Your task to perform on an android device: choose inbox layout in the gmail app Image 0: 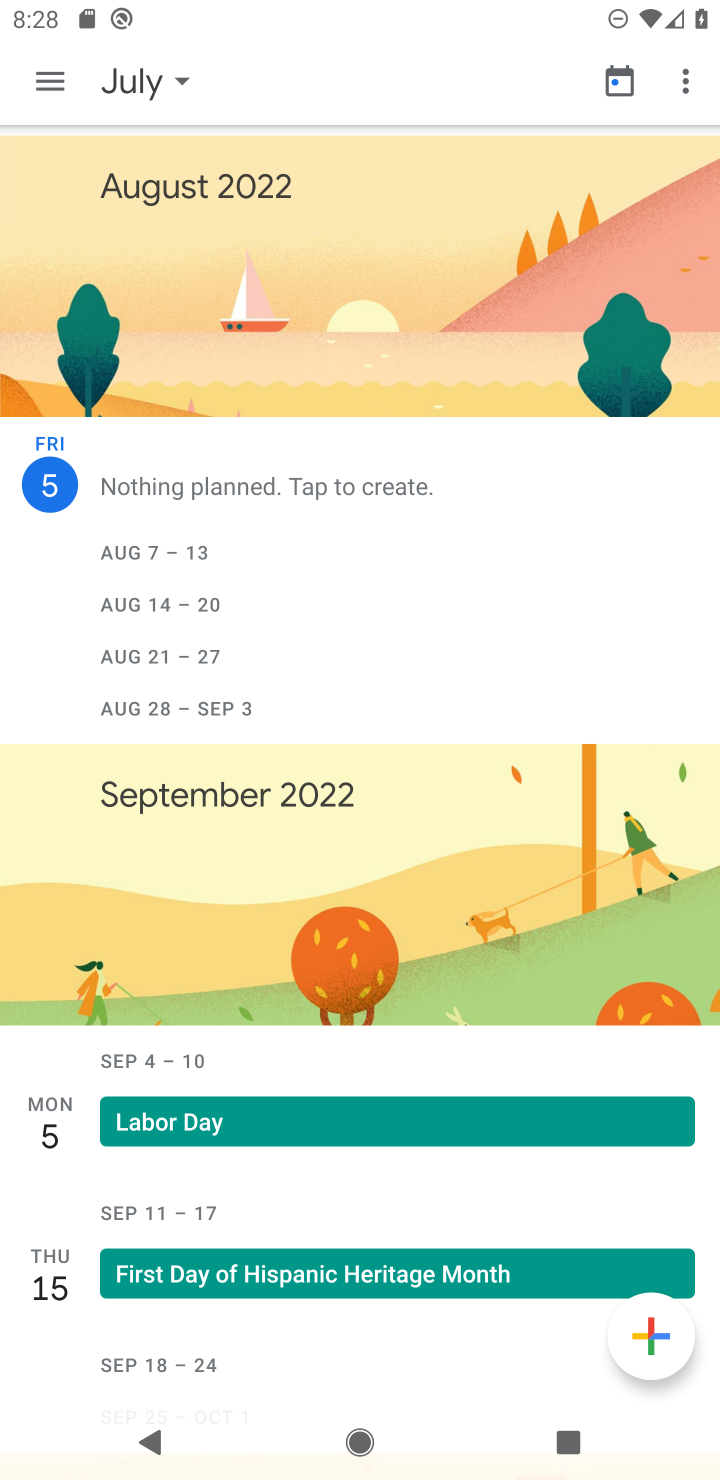
Step 0: press home button
Your task to perform on an android device: choose inbox layout in the gmail app Image 1: 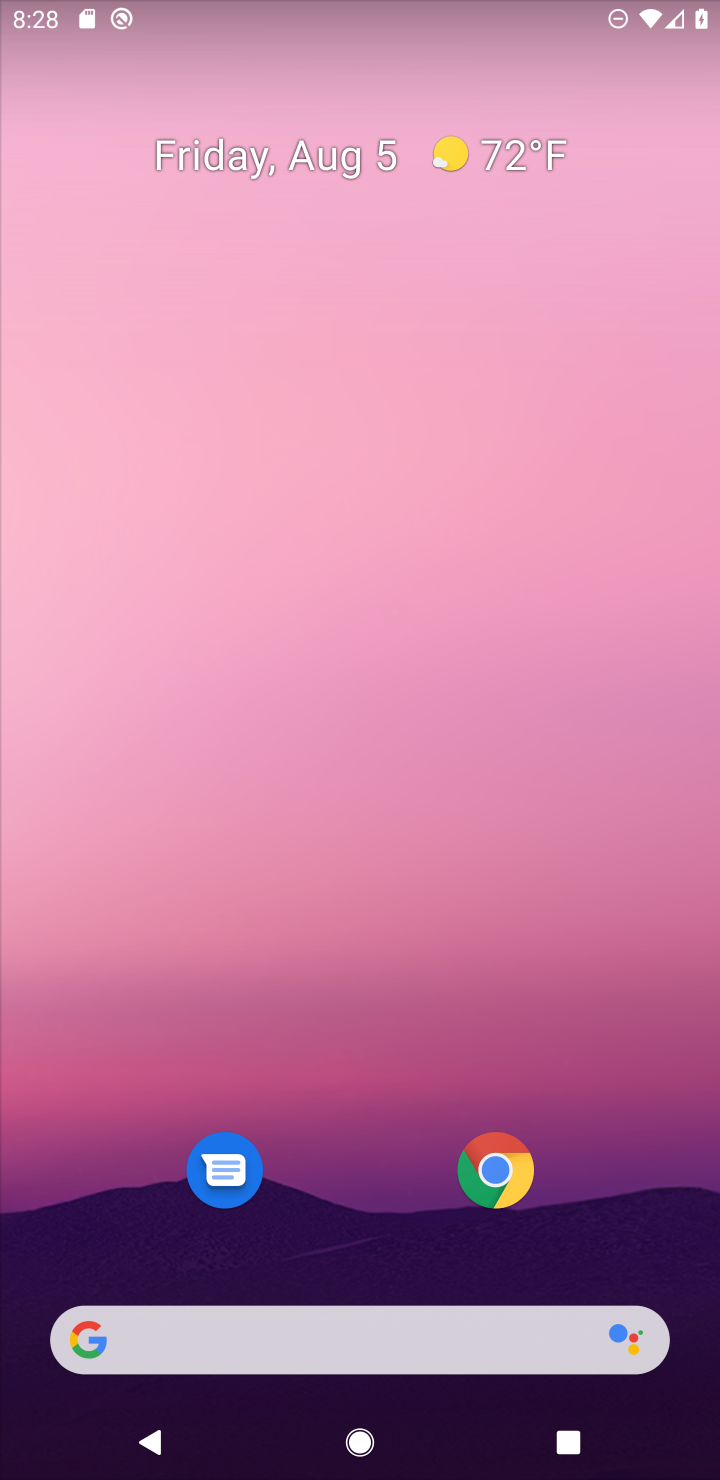
Step 1: drag from (656, 1236) to (558, 320)
Your task to perform on an android device: choose inbox layout in the gmail app Image 2: 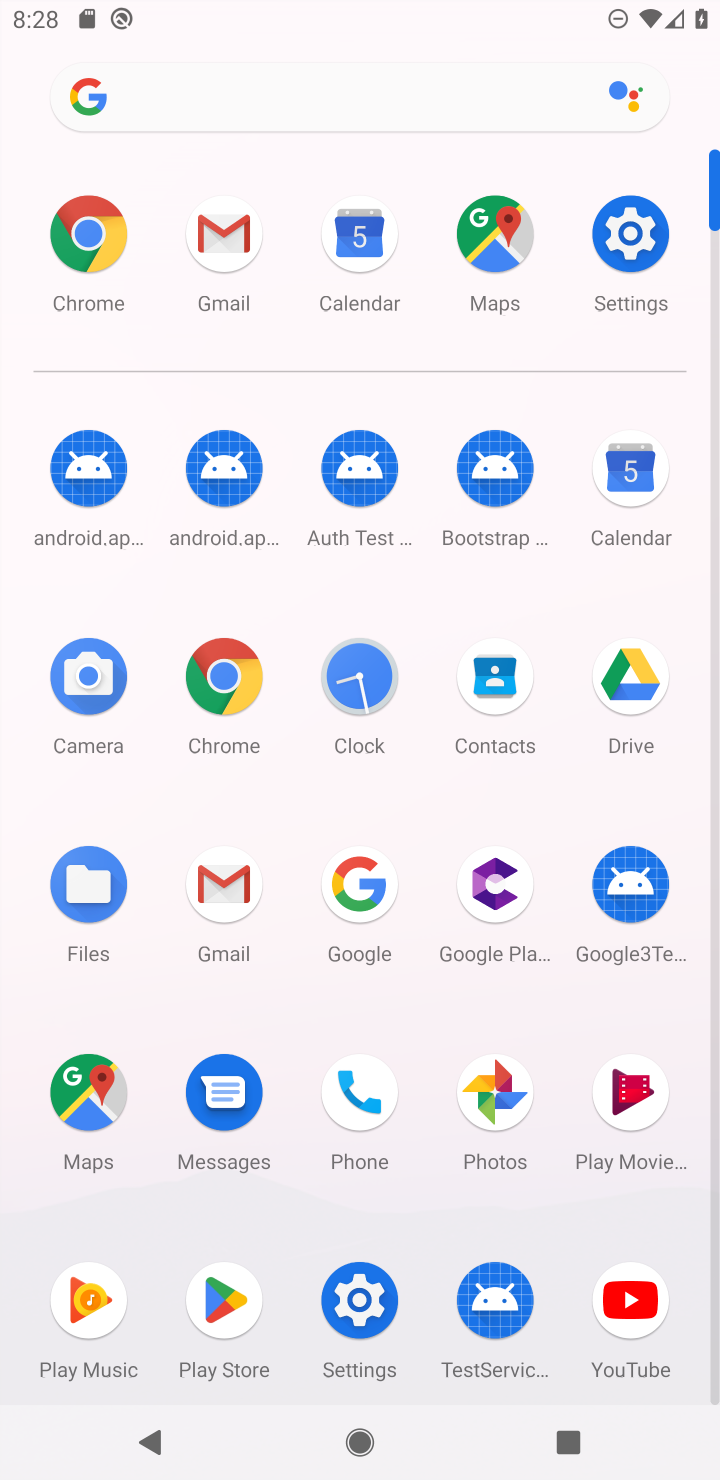
Step 2: click (218, 889)
Your task to perform on an android device: choose inbox layout in the gmail app Image 3: 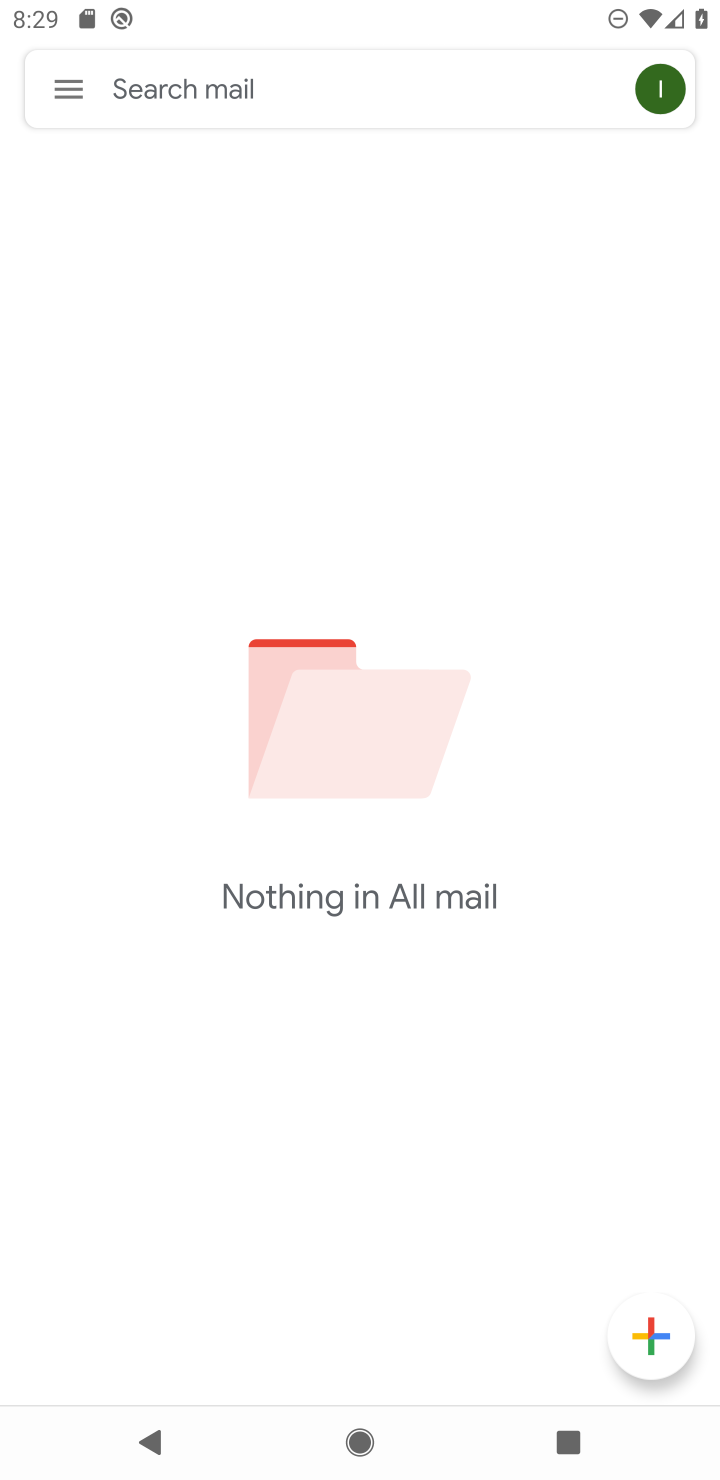
Step 3: click (57, 91)
Your task to perform on an android device: choose inbox layout in the gmail app Image 4: 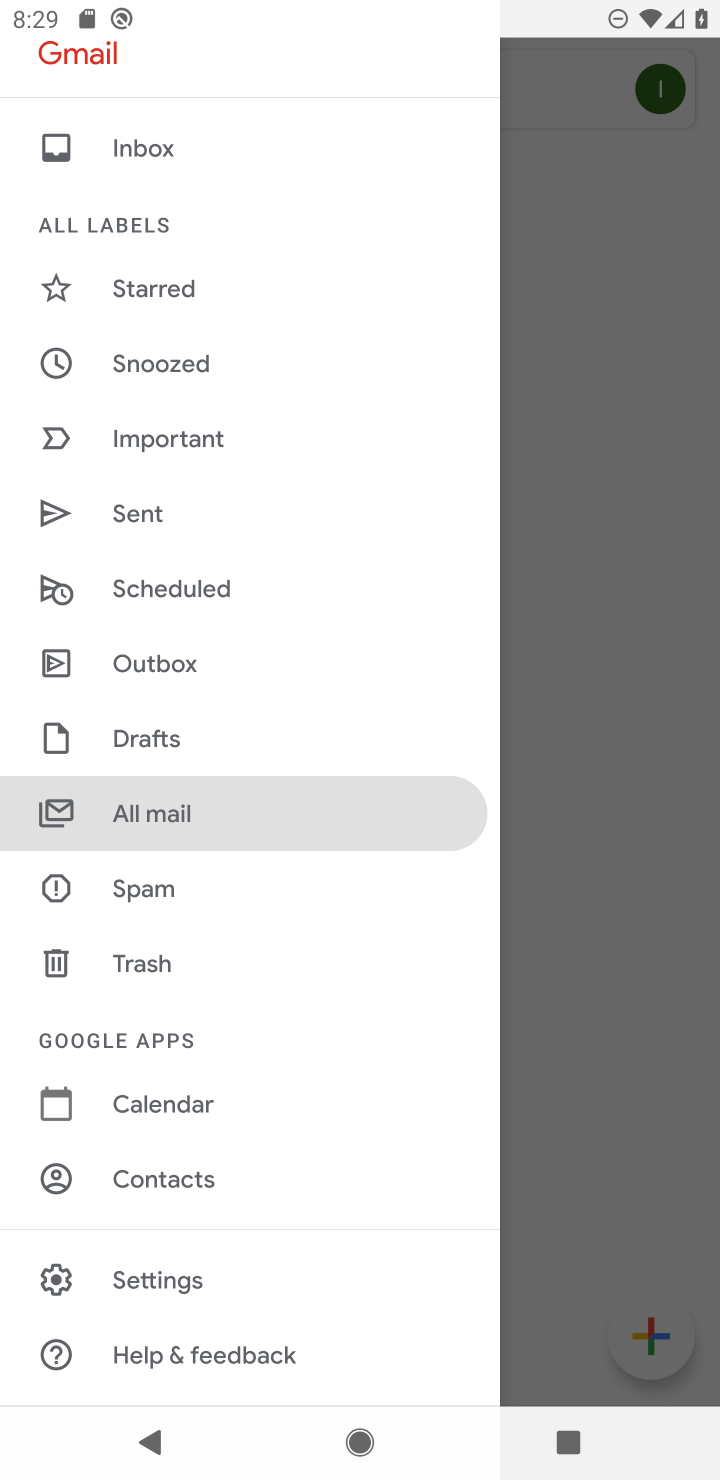
Step 4: click (190, 1280)
Your task to perform on an android device: choose inbox layout in the gmail app Image 5: 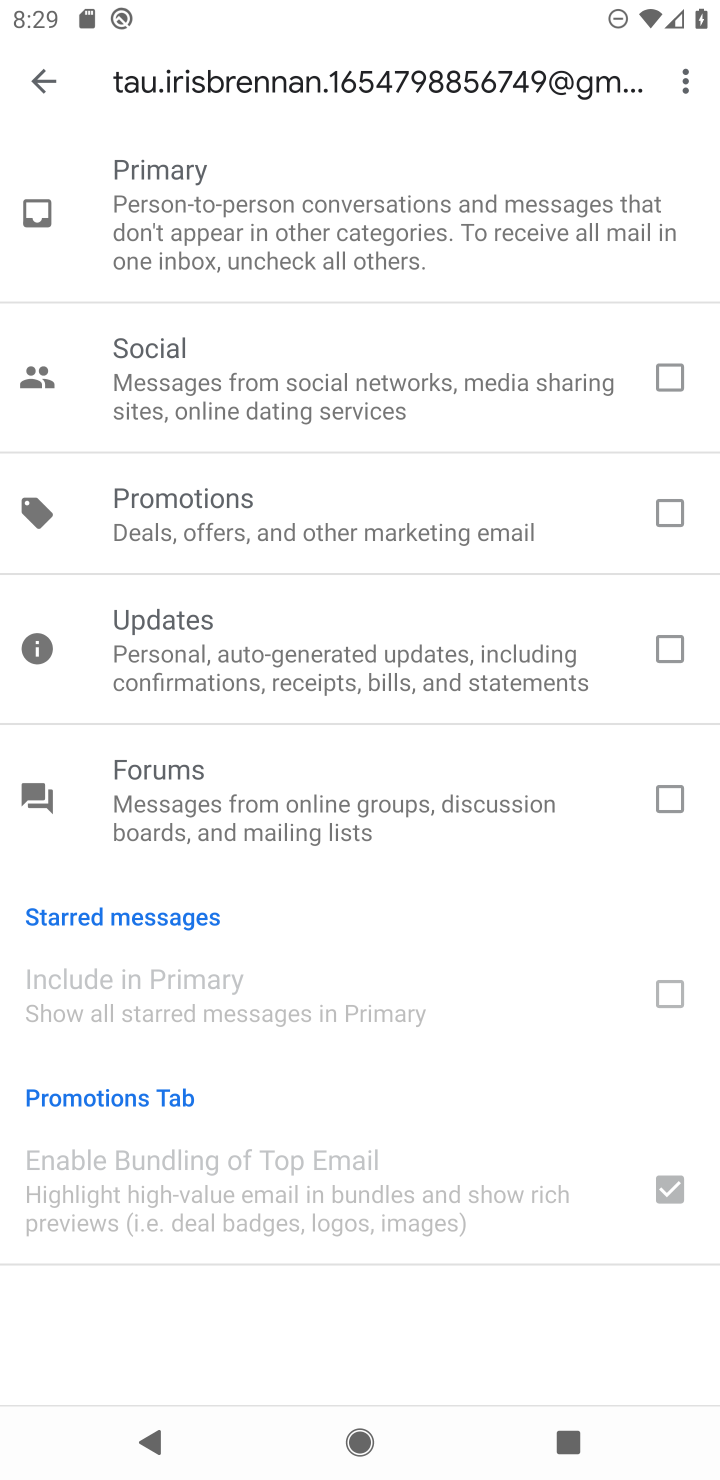
Step 5: press back button
Your task to perform on an android device: choose inbox layout in the gmail app Image 6: 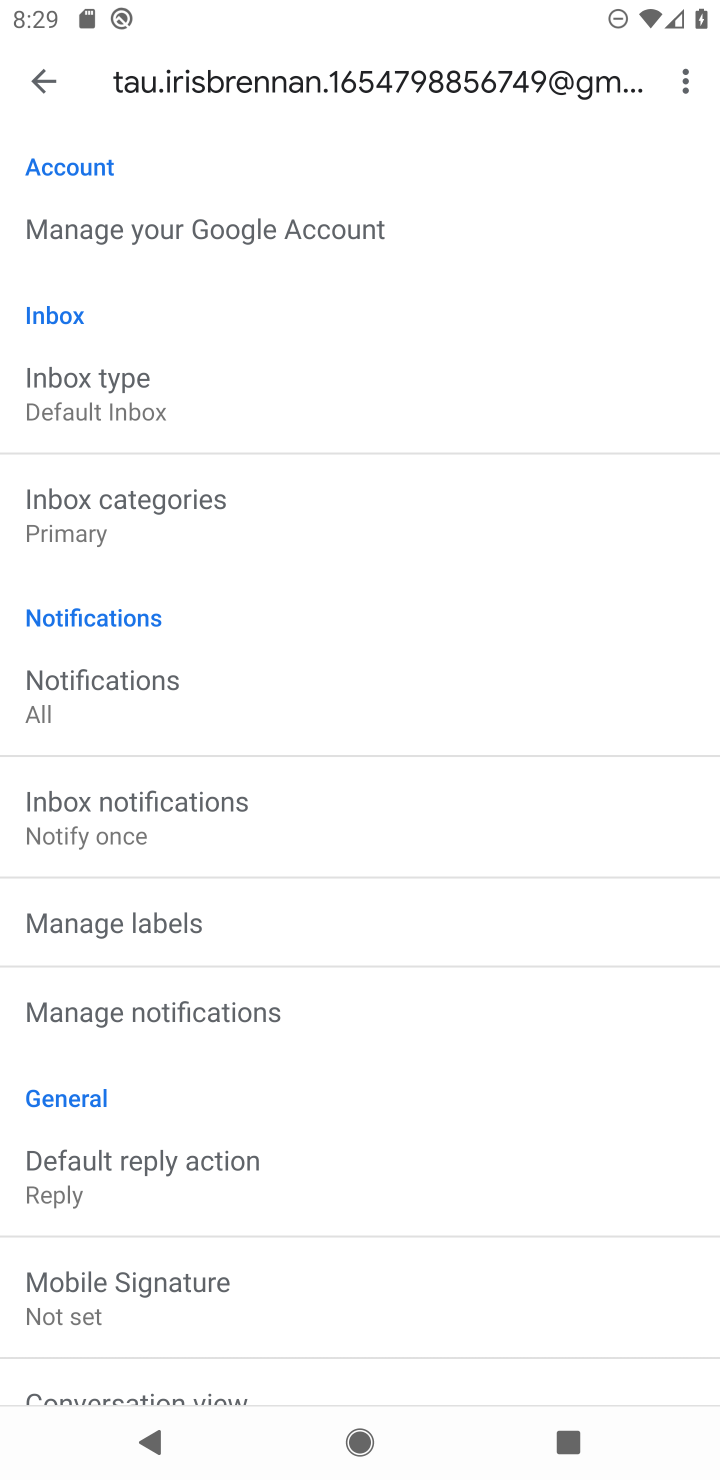
Step 6: click (101, 393)
Your task to perform on an android device: choose inbox layout in the gmail app Image 7: 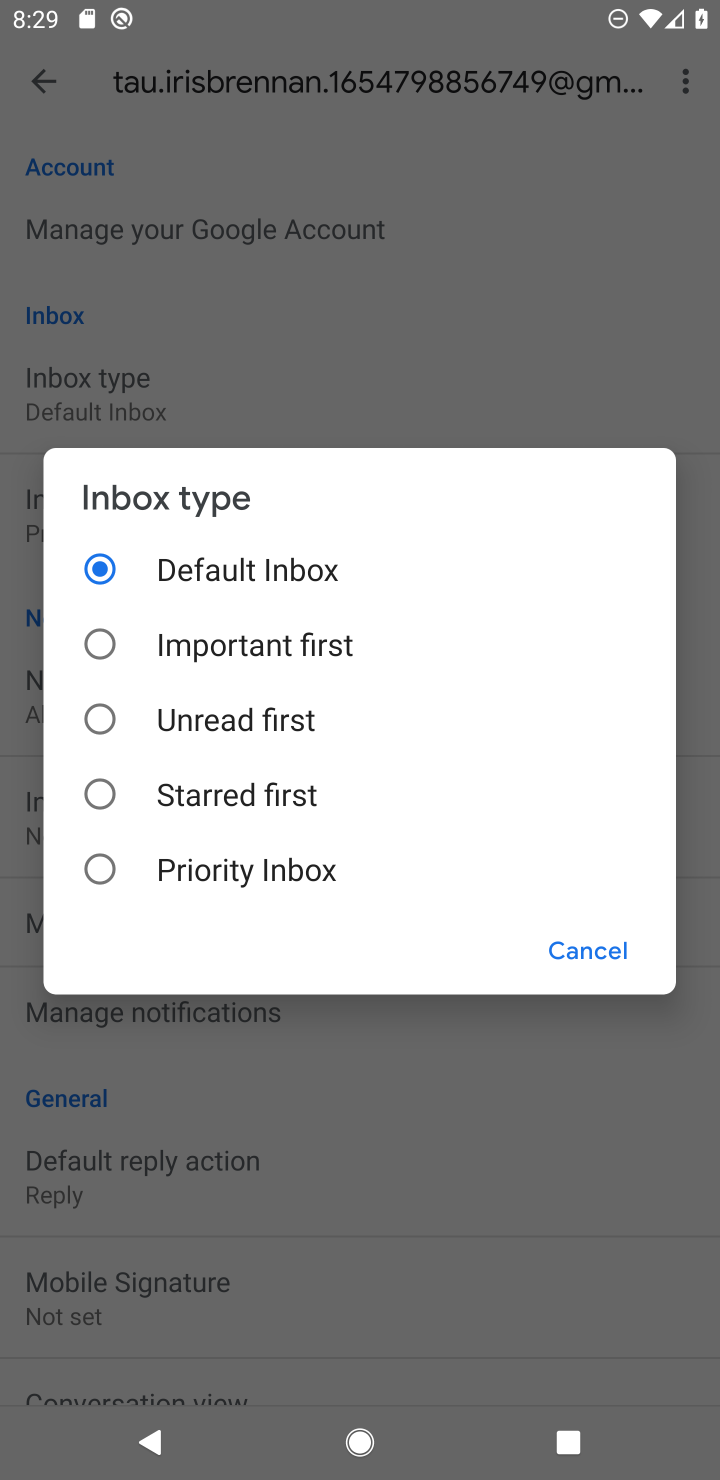
Step 7: click (102, 641)
Your task to perform on an android device: choose inbox layout in the gmail app Image 8: 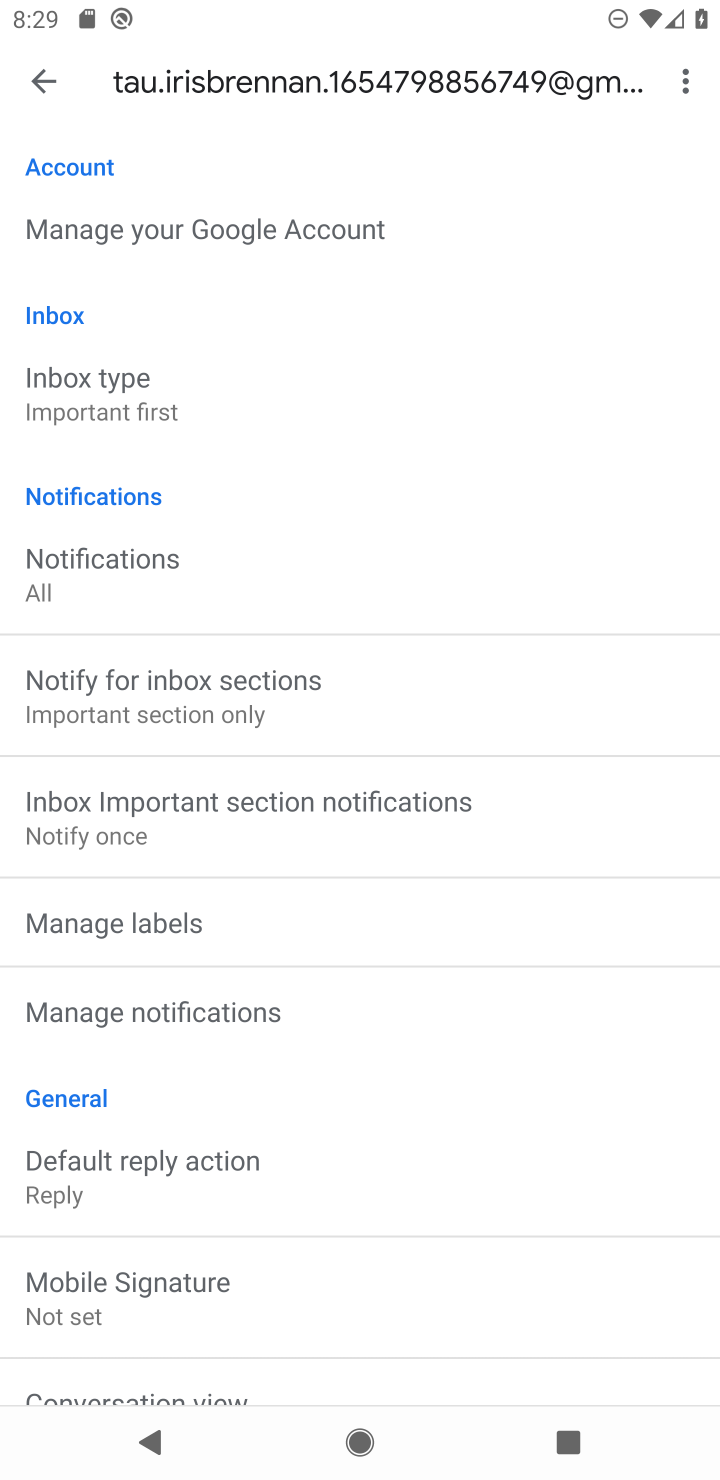
Step 8: task complete